Your task to perform on an android device: Add "razer naga" to the cart on bestbuy Image 0: 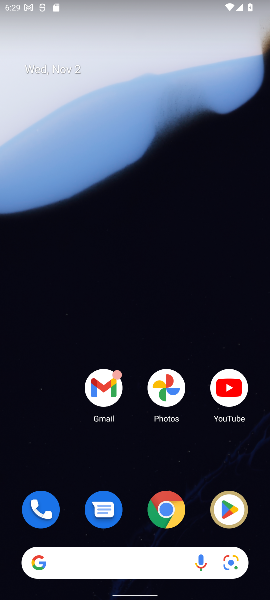
Step 0: click (133, 560)
Your task to perform on an android device: Add "razer naga" to the cart on bestbuy Image 1: 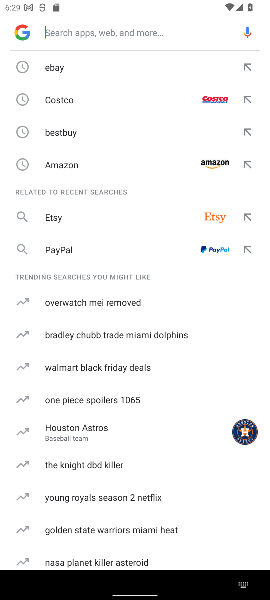
Step 1: click (48, 132)
Your task to perform on an android device: Add "razer naga" to the cart on bestbuy Image 2: 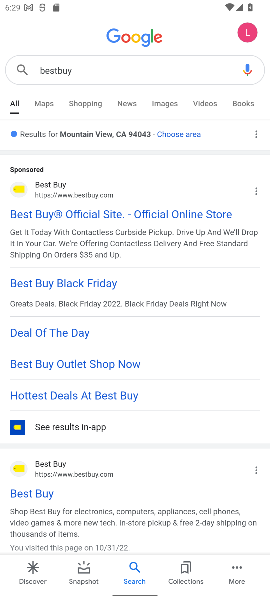
Step 2: click (26, 491)
Your task to perform on an android device: Add "razer naga" to the cart on bestbuy Image 3: 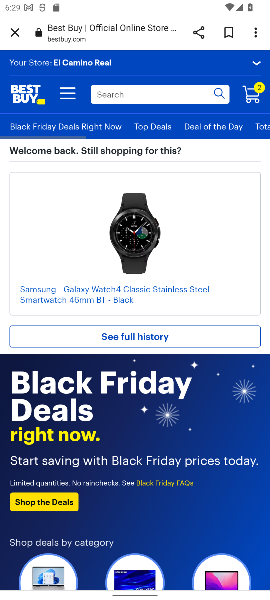
Step 3: click (120, 97)
Your task to perform on an android device: Add "razer naga" to the cart on bestbuy Image 4: 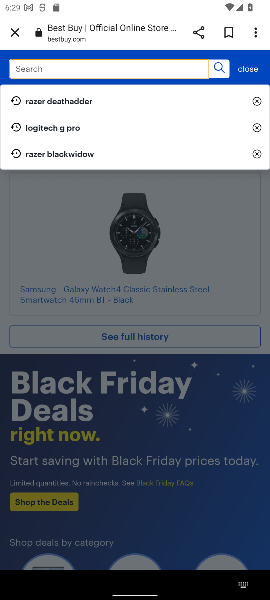
Step 4: click (48, 71)
Your task to perform on an android device: Add "razer naga" to the cart on bestbuy Image 5: 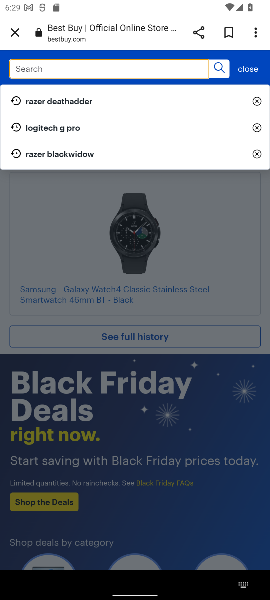
Step 5: type "razer naga"
Your task to perform on an android device: Add "razer naga" to the cart on bestbuy Image 6: 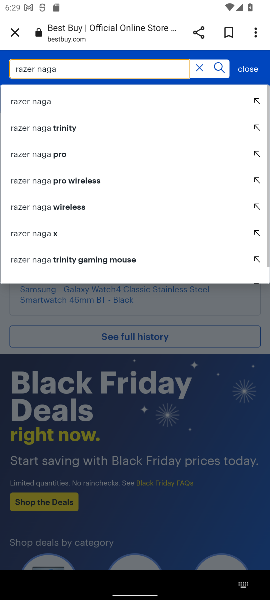
Step 6: click (28, 100)
Your task to perform on an android device: Add "razer naga" to the cart on bestbuy Image 7: 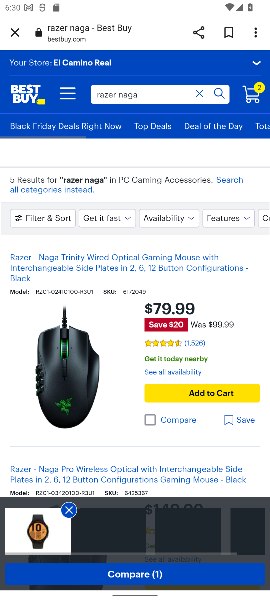
Step 7: click (193, 390)
Your task to perform on an android device: Add "razer naga" to the cart on bestbuy Image 8: 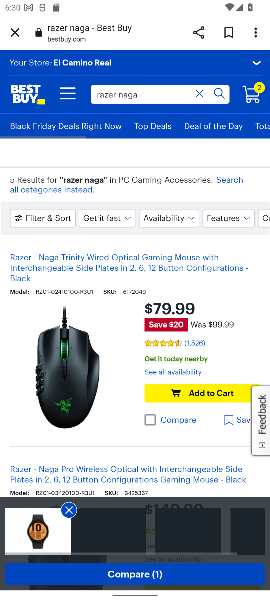
Step 8: click (178, 393)
Your task to perform on an android device: Add "razer naga" to the cart on bestbuy Image 9: 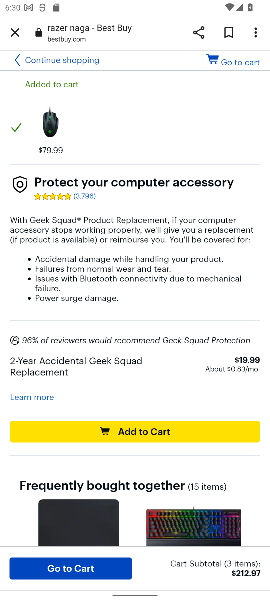
Step 9: click (126, 429)
Your task to perform on an android device: Add "razer naga" to the cart on bestbuy Image 10: 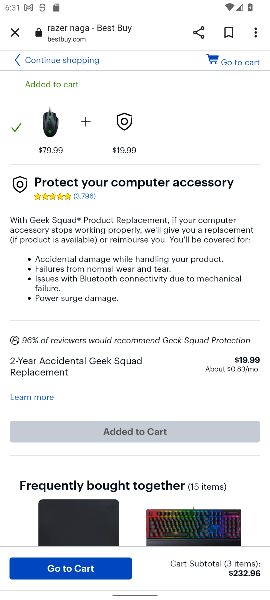
Step 10: task complete